Your task to perform on an android device: Is it going to rain this weekend? Image 0: 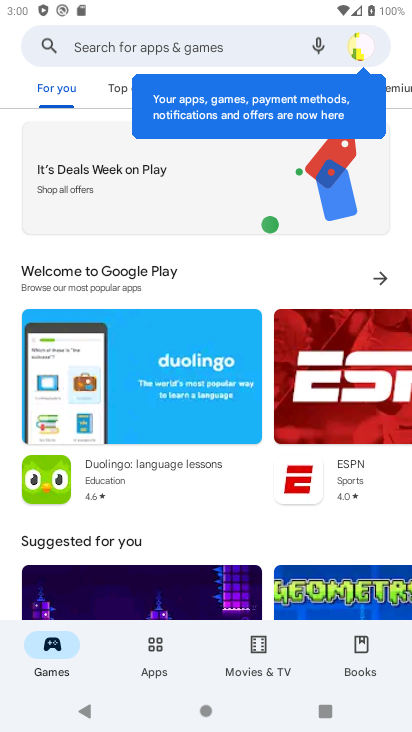
Step 0: press home button
Your task to perform on an android device: Is it going to rain this weekend? Image 1: 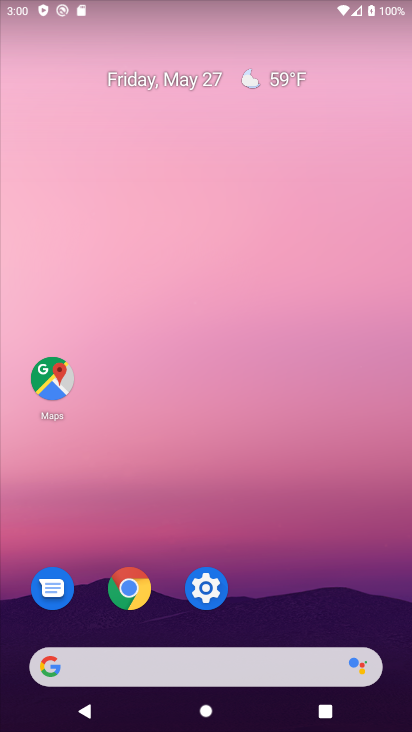
Step 1: drag from (282, 387) to (214, 139)
Your task to perform on an android device: Is it going to rain this weekend? Image 2: 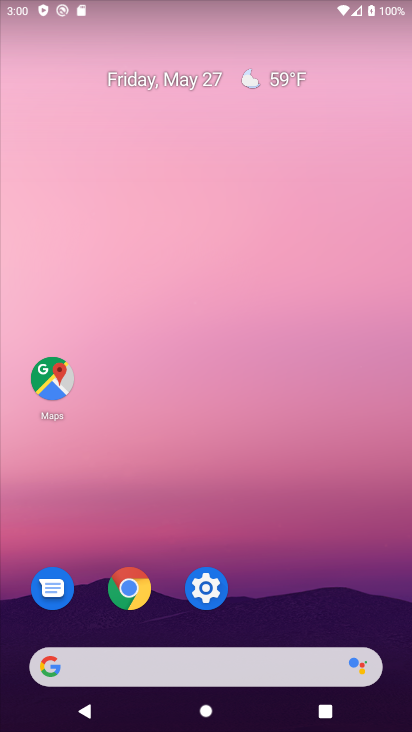
Step 2: drag from (8, 194) to (405, 401)
Your task to perform on an android device: Is it going to rain this weekend? Image 3: 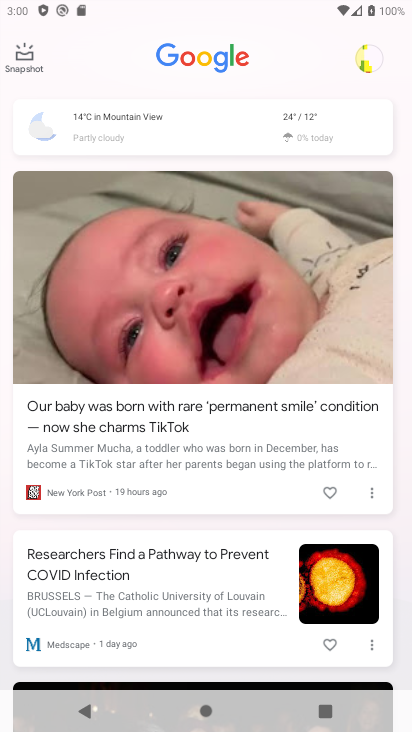
Step 3: drag from (3, 180) to (284, 443)
Your task to perform on an android device: Is it going to rain this weekend? Image 4: 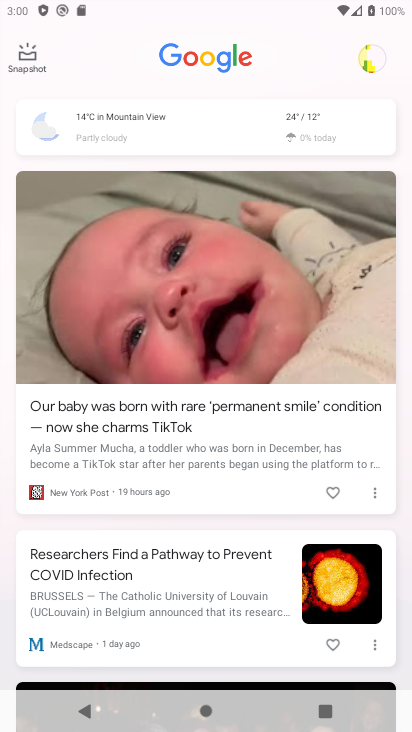
Step 4: press home button
Your task to perform on an android device: Is it going to rain this weekend? Image 5: 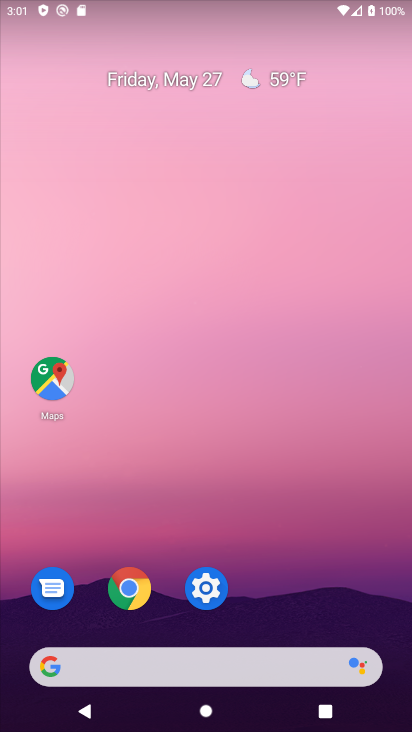
Step 5: drag from (0, 233) to (388, 433)
Your task to perform on an android device: Is it going to rain this weekend? Image 6: 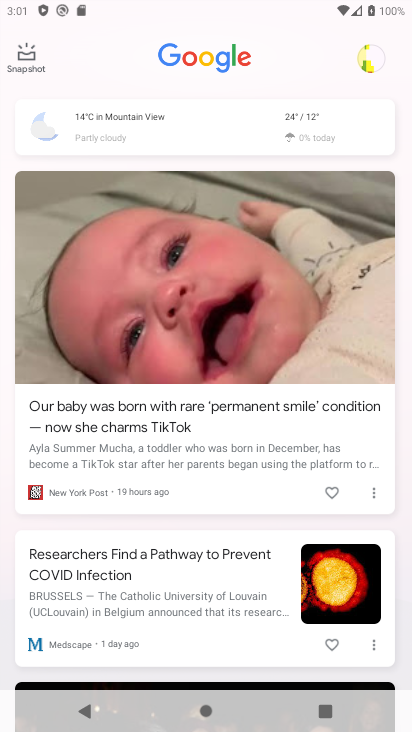
Step 6: drag from (4, 238) to (297, 365)
Your task to perform on an android device: Is it going to rain this weekend? Image 7: 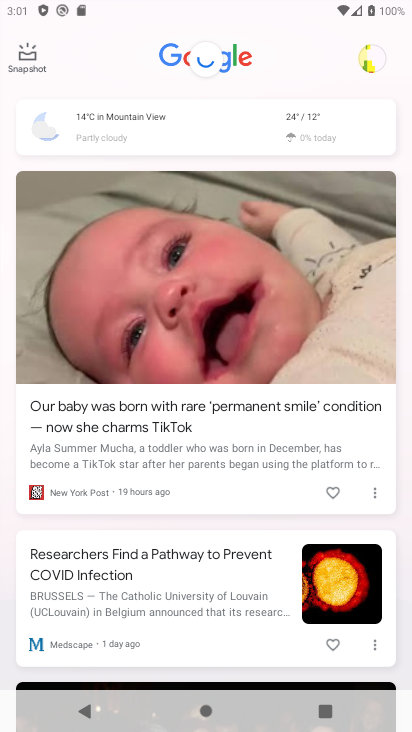
Step 7: drag from (169, 119) to (320, 525)
Your task to perform on an android device: Is it going to rain this weekend? Image 8: 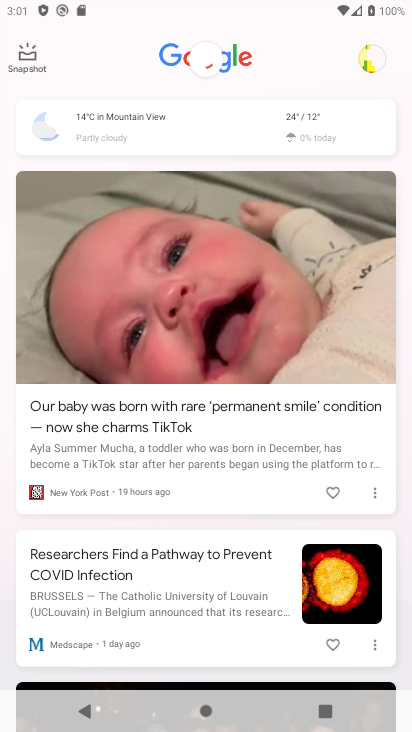
Step 8: drag from (164, 151) to (187, 393)
Your task to perform on an android device: Is it going to rain this weekend? Image 9: 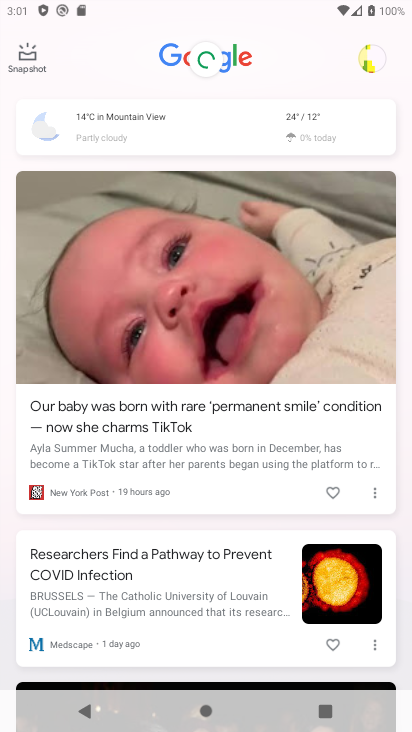
Step 9: drag from (172, 209) to (190, 270)
Your task to perform on an android device: Is it going to rain this weekend? Image 10: 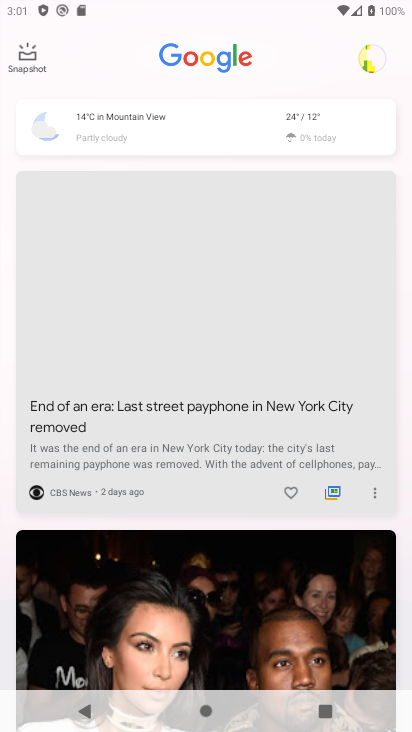
Step 10: click (207, 275)
Your task to perform on an android device: Is it going to rain this weekend? Image 11: 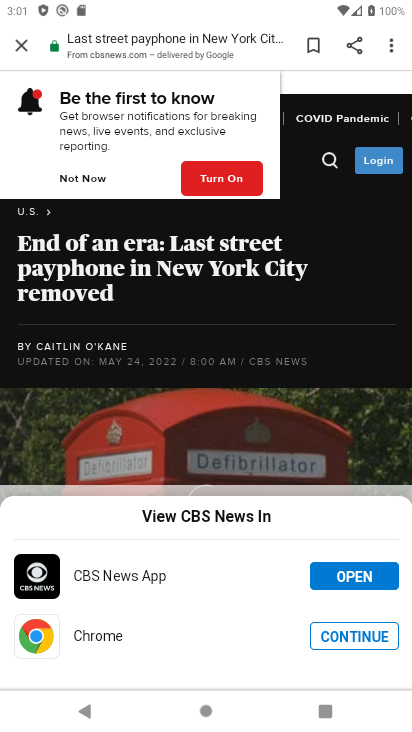
Step 11: drag from (224, 530) to (128, 201)
Your task to perform on an android device: Is it going to rain this weekend? Image 12: 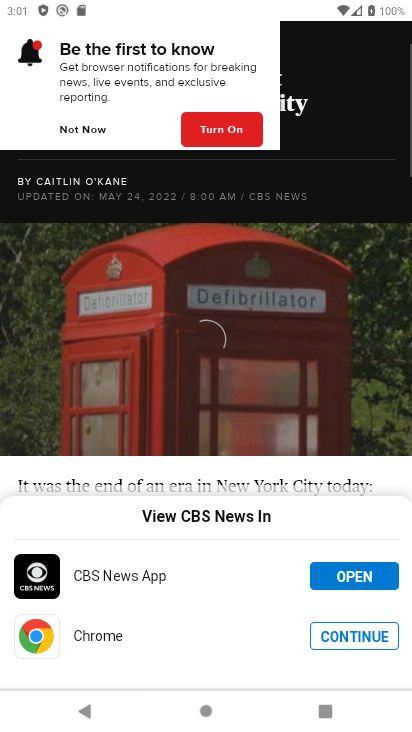
Step 12: click (122, 45)
Your task to perform on an android device: Is it going to rain this weekend? Image 13: 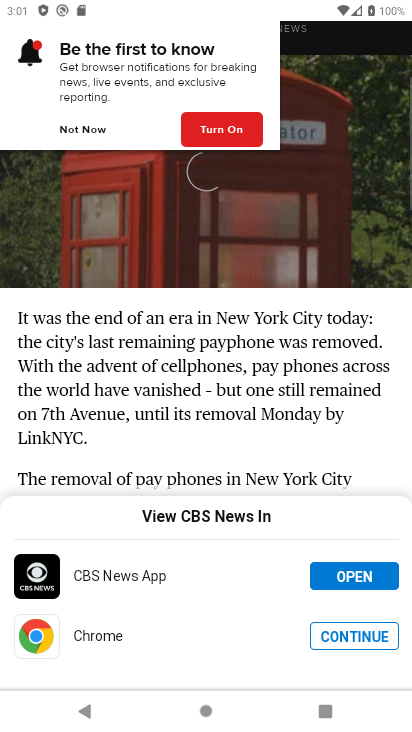
Step 13: drag from (159, 208) to (114, 48)
Your task to perform on an android device: Is it going to rain this weekend? Image 14: 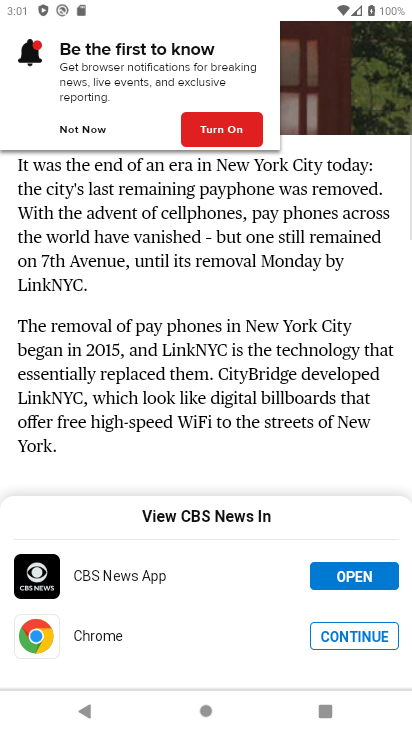
Step 14: drag from (225, 271) to (217, 126)
Your task to perform on an android device: Is it going to rain this weekend? Image 15: 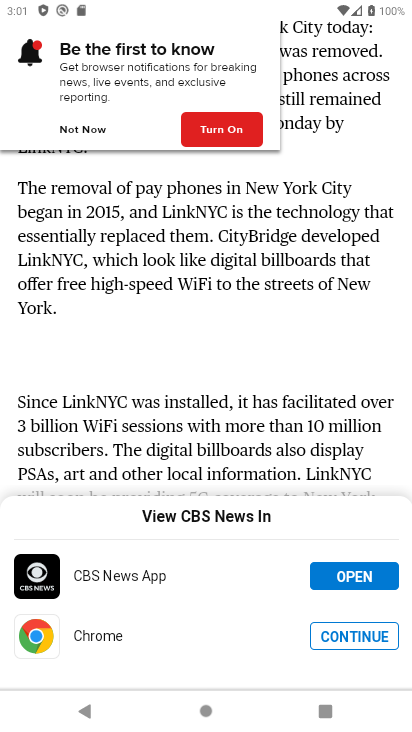
Step 15: press back button
Your task to perform on an android device: Is it going to rain this weekend? Image 16: 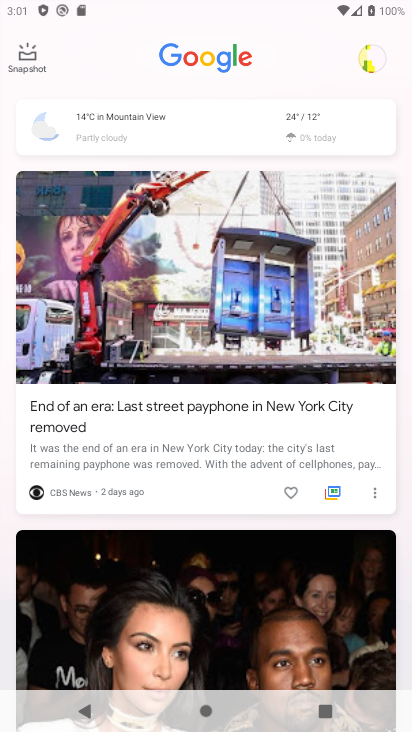
Step 16: press back button
Your task to perform on an android device: Is it going to rain this weekend? Image 17: 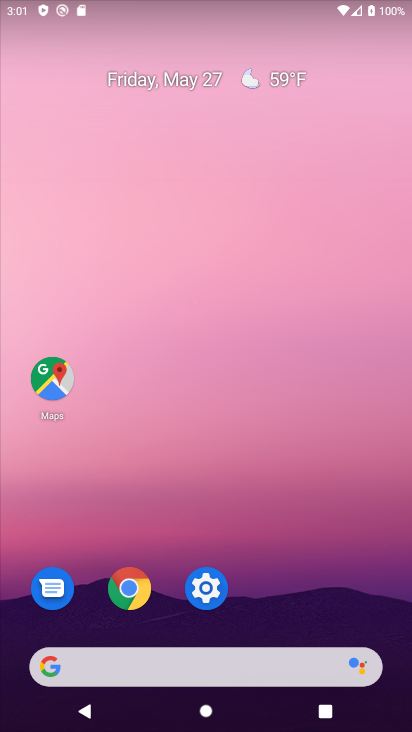
Step 17: drag from (42, 259) to (399, 369)
Your task to perform on an android device: Is it going to rain this weekend? Image 18: 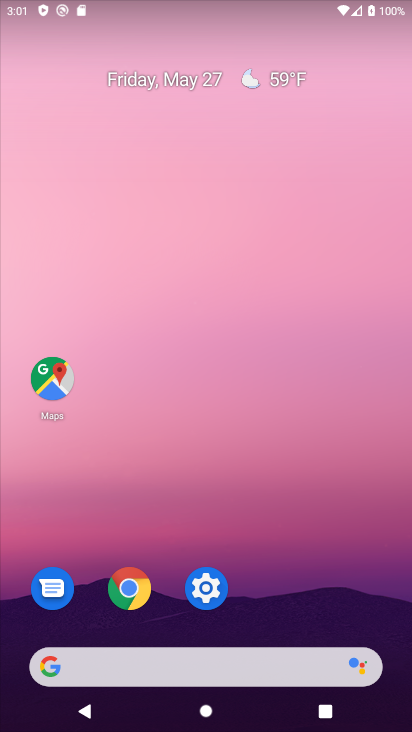
Step 18: drag from (15, 227) to (357, 479)
Your task to perform on an android device: Is it going to rain this weekend? Image 19: 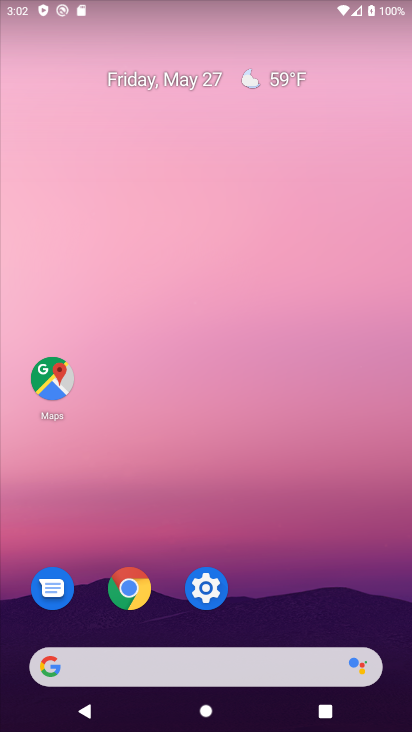
Step 19: drag from (3, 243) to (347, 486)
Your task to perform on an android device: Is it going to rain this weekend? Image 20: 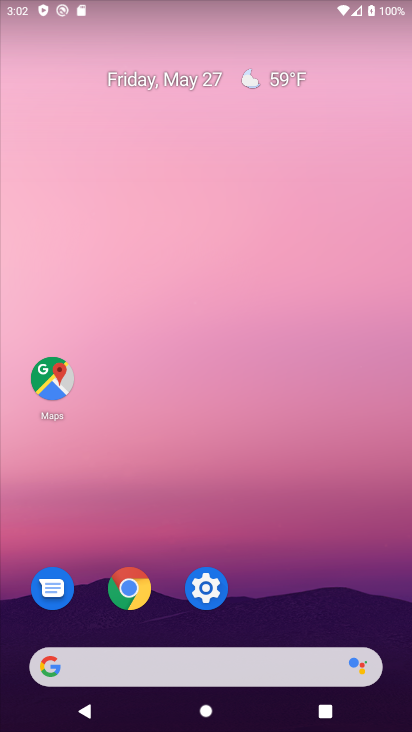
Step 20: drag from (7, 204) to (401, 470)
Your task to perform on an android device: Is it going to rain this weekend? Image 21: 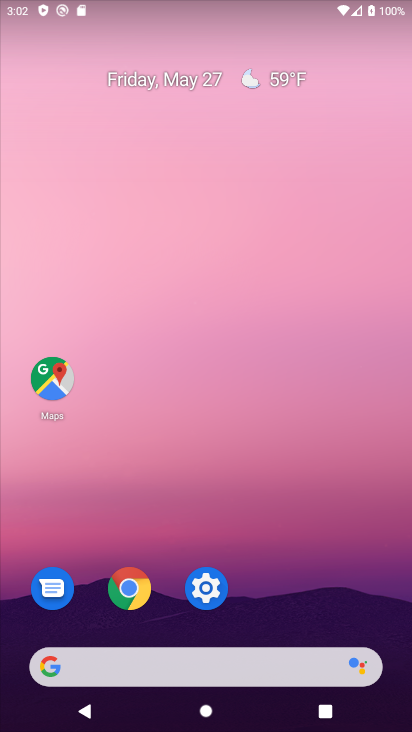
Step 21: click (295, 375)
Your task to perform on an android device: Is it going to rain this weekend? Image 22: 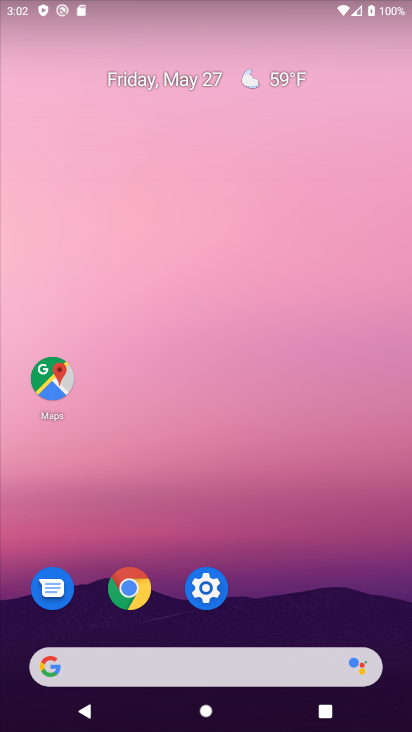
Step 22: drag from (5, 185) to (368, 407)
Your task to perform on an android device: Is it going to rain this weekend? Image 23: 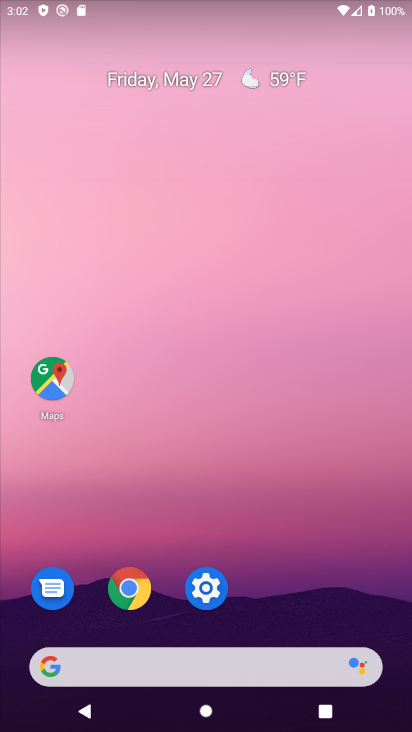
Step 23: drag from (69, 232) to (312, 422)
Your task to perform on an android device: Is it going to rain this weekend? Image 24: 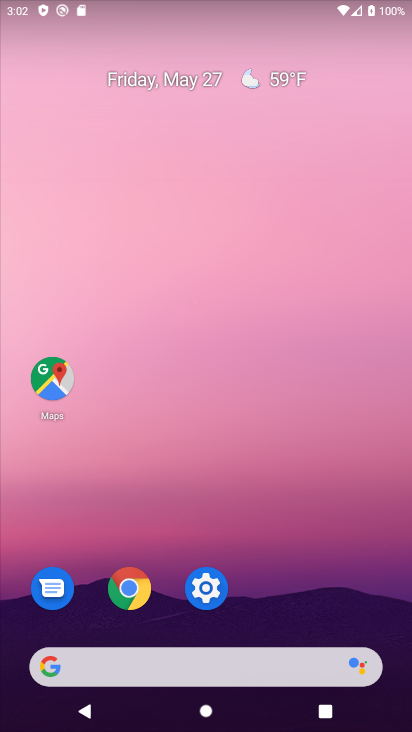
Step 24: drag from (32, 221) to (314, 413)
Your task to perform on an android device: Is it going to rain this weekend? Image 25: 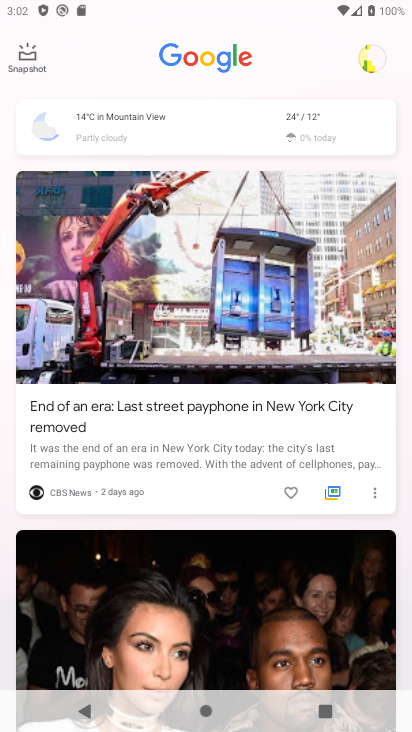
Step 25: click (156, 143)
Your task to perform on an android device: Is it going to rain this weekend? Image 26: 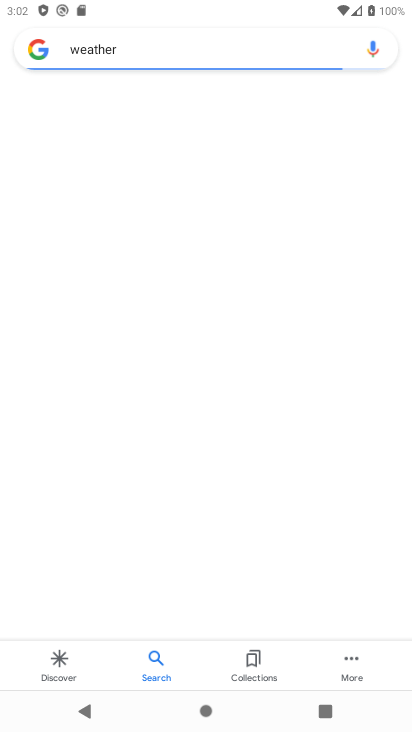
Step 26: click (156, 138)
Your task to perform on an android device: Is it going to rain this weekend? Image 27: 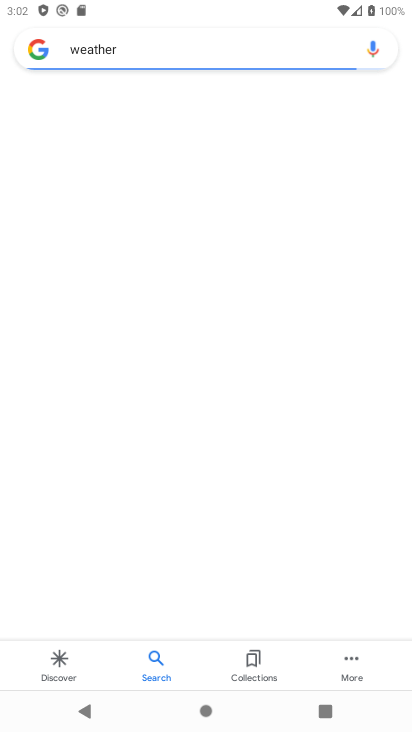
Step 27: click (156, 138)
Your task to perform on an android device: Is it going to rain this weekend? Image 28: 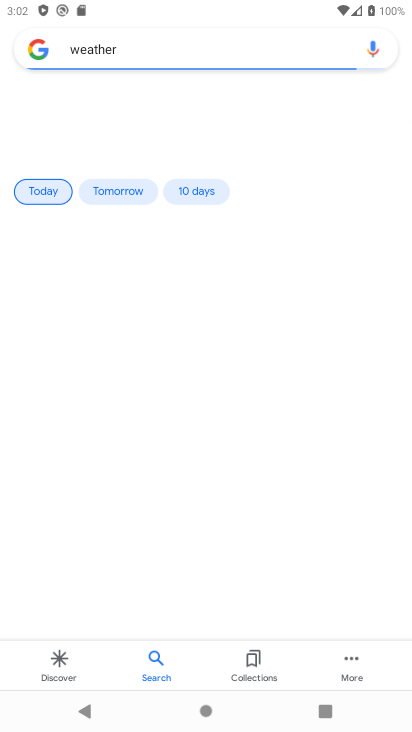
Step 28: click (156, 138)
Your task to perform on an android device: Is it going to rain this weekend? Image 29: 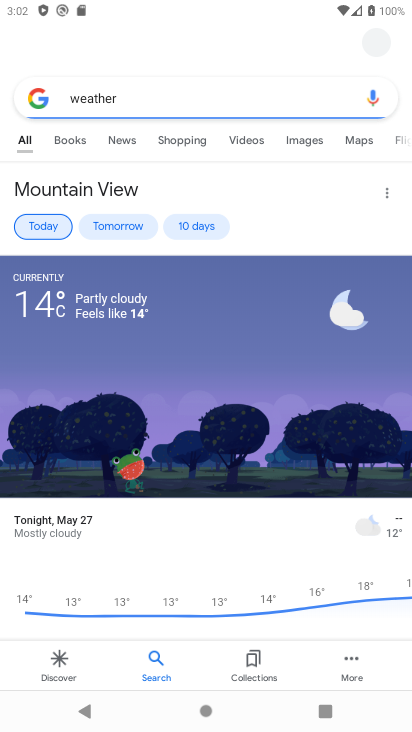
Step 29: click (157, 137)
Your task to perform on an android device: Is it going to rain this weekend? Image 30: 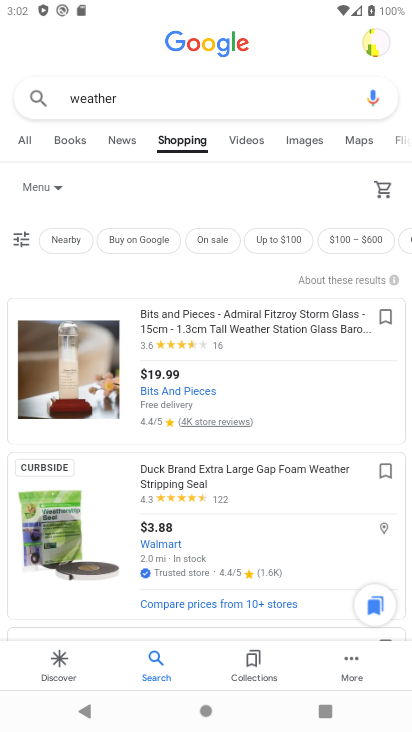
Step 30: click (188, 475)
Your task to perform on an android device: Is it going to rain this weekend? Image 31: 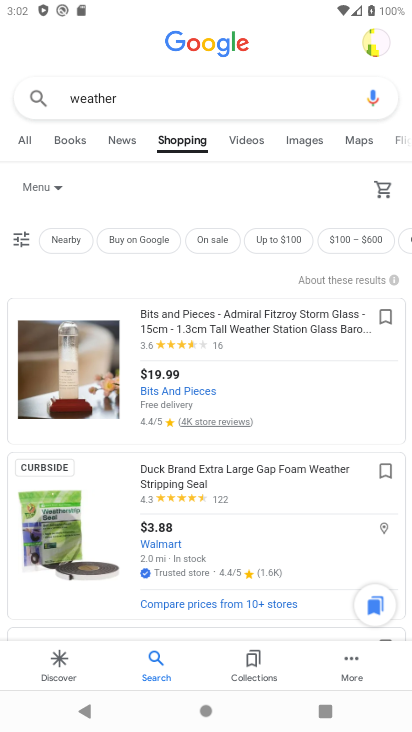
Step 31: drag from (168, 412) to (258, 516)
Your task to perform on an android device: Is it going to rain this weekend? Image 32: 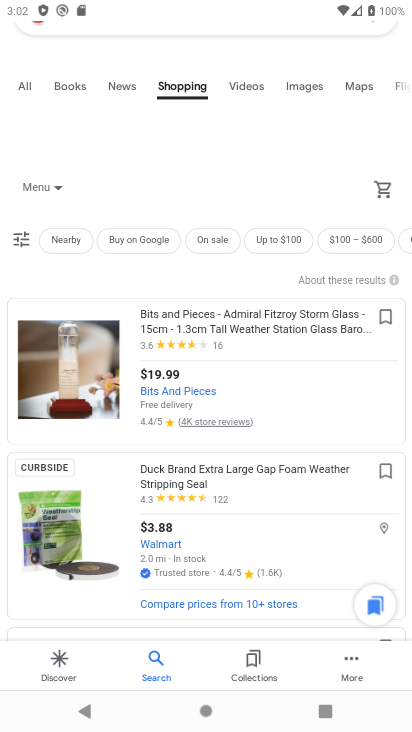
Step 32: drag from (168, 543) to (192, 570)
Your task to perform on an android device: Is it going to rain this weekend? Image 33: 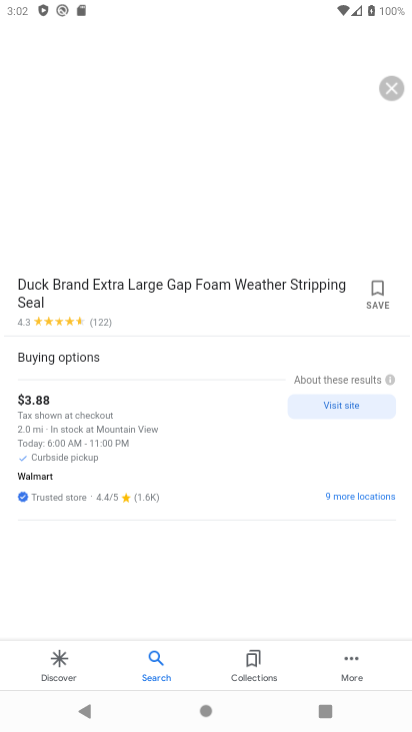
Step 33: drag from (97, 429) to (213, 498)
Your task to perform on an android device: Is it going to rain this weekend? Image 34: 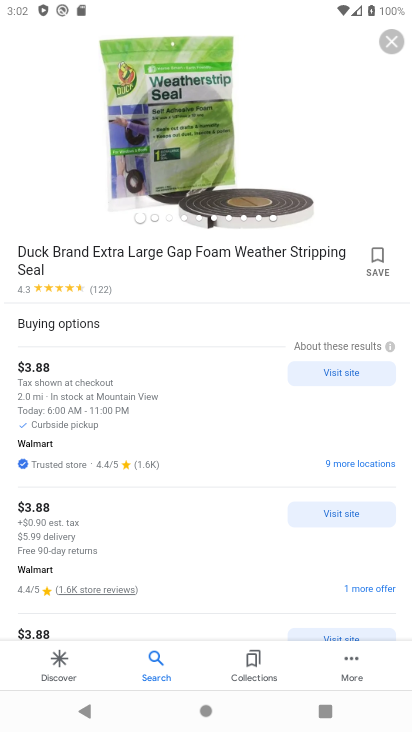
Step 34: click (190, 43)
Your task to perform on an android device: Is it going to rain this weekend? Image 35: 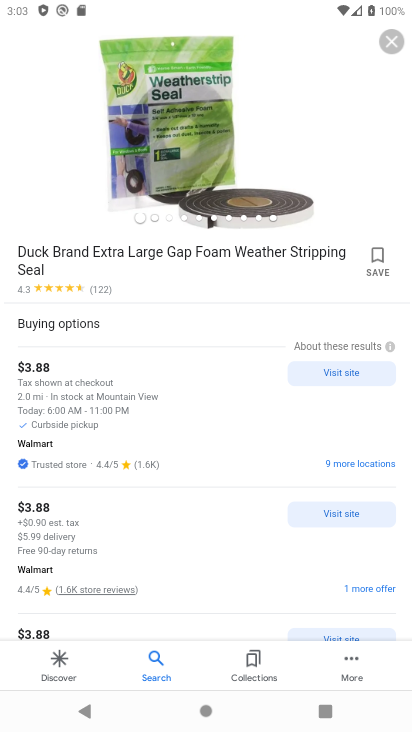
Step 35: click (171, 65)
Your task to perform on an android device: Is it going to rain this weekend? Image 36: 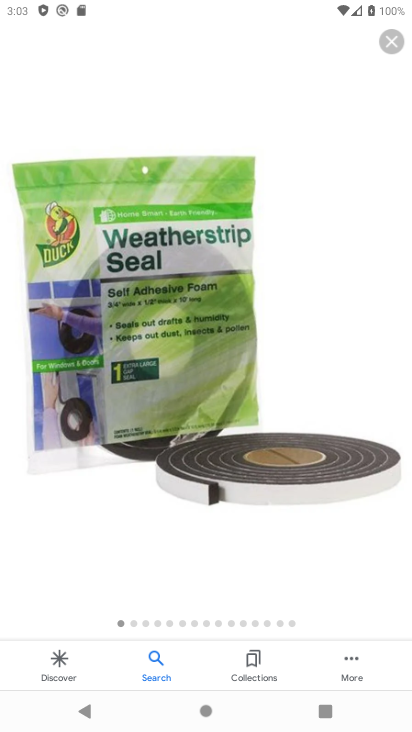
Step 36: task complete